Your task to perform on an android device: open the mobile data screen to see how much data has been used Image 0: 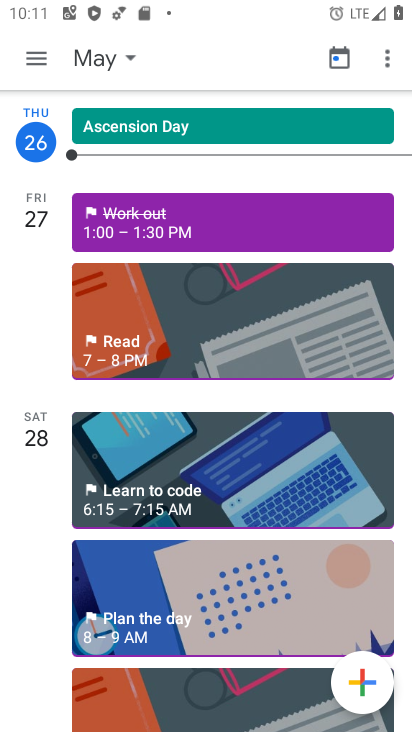
Step 0: press home button
Your task to perform on an android device: open the mobile data screen to see how much data has been used Image 1: 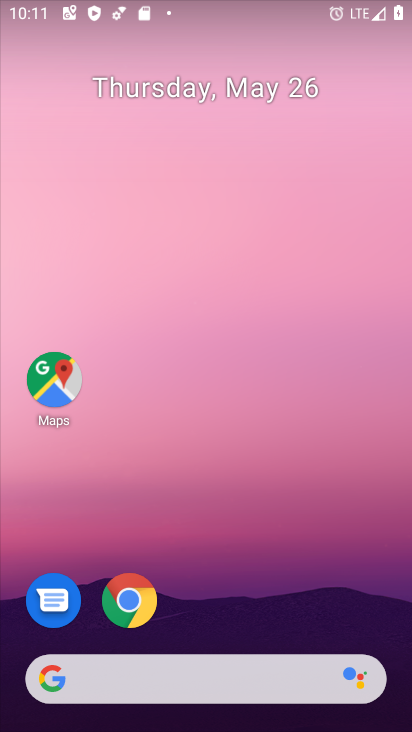
Step 1: drag from (321, 465) to (374, 108)
Your task to perform on an android device: open the mobile data screen to see how much data has been used Image 2: 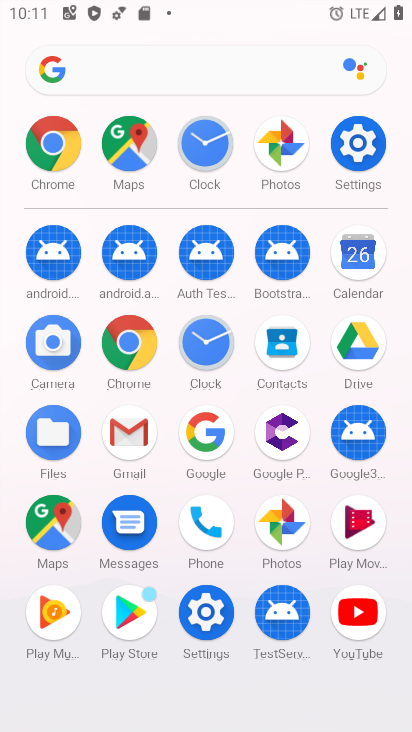
Step 2: click (375, 146)
Your task to perform on an android device: open the mobile data screen to see how much data has been used Image 3: 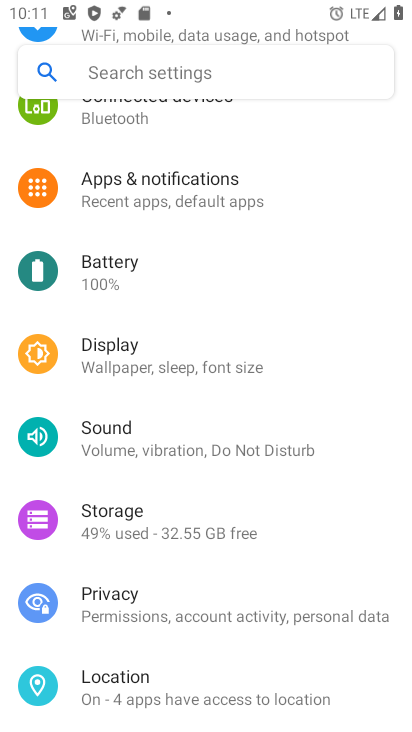
Step 3: drag from (236, 157) to (134, 464)
Your task to perform on an android device: open the mobile data screen to see how much data has been used Image 4: 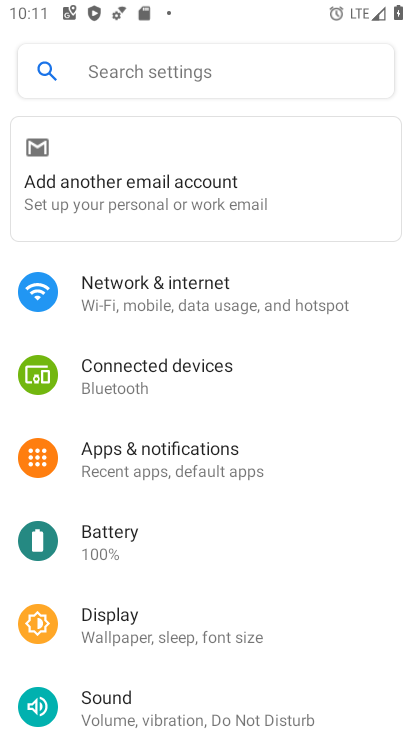
Step 4: click (185, 308)
Your task to perform on an android device: open the mobile data screen to see how much data has been used Image 5: 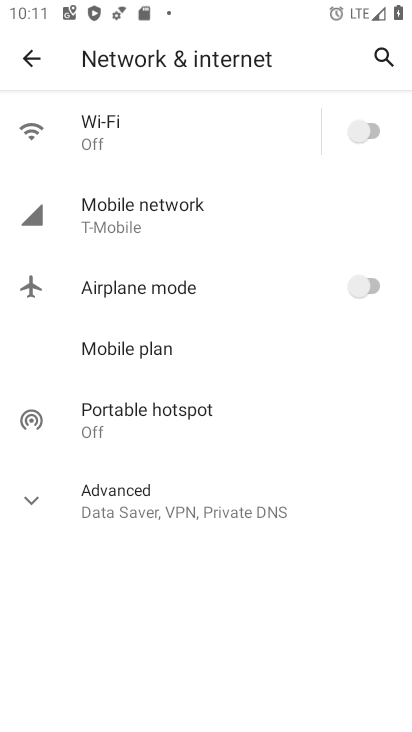
Step 5: click (208, 221)
Your task to perform on an android device: open the mobile data screen to see how much data has been used Image 6: 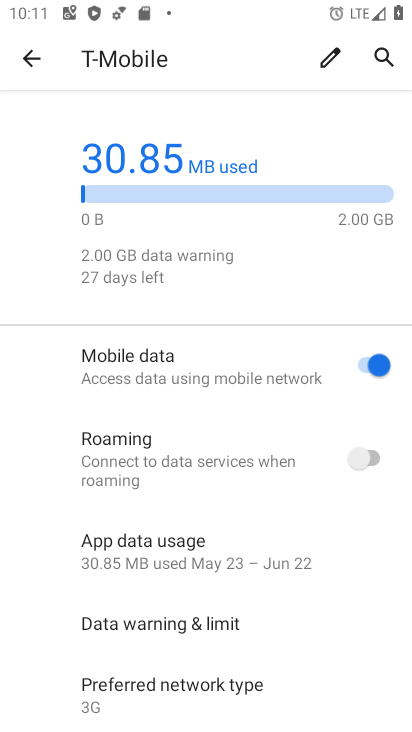
Step 6: task complete